Your task to perform on an android device: Search for custom wallets on Etsy. Image 0: 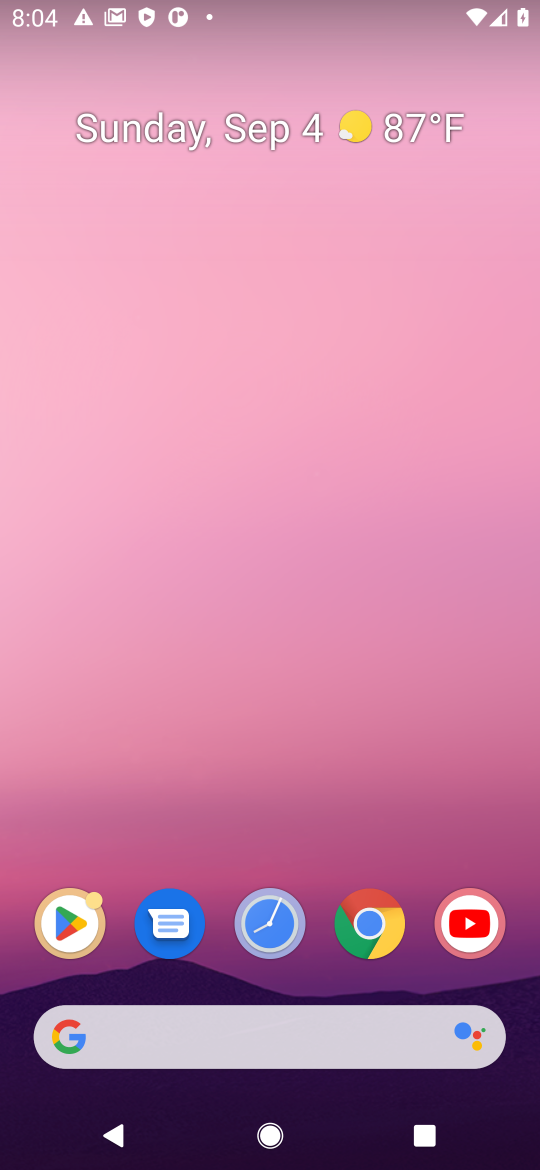
Step 0: press home button
Your task to perform on an android device: Search for custom wallets on Etsy. Image 1: 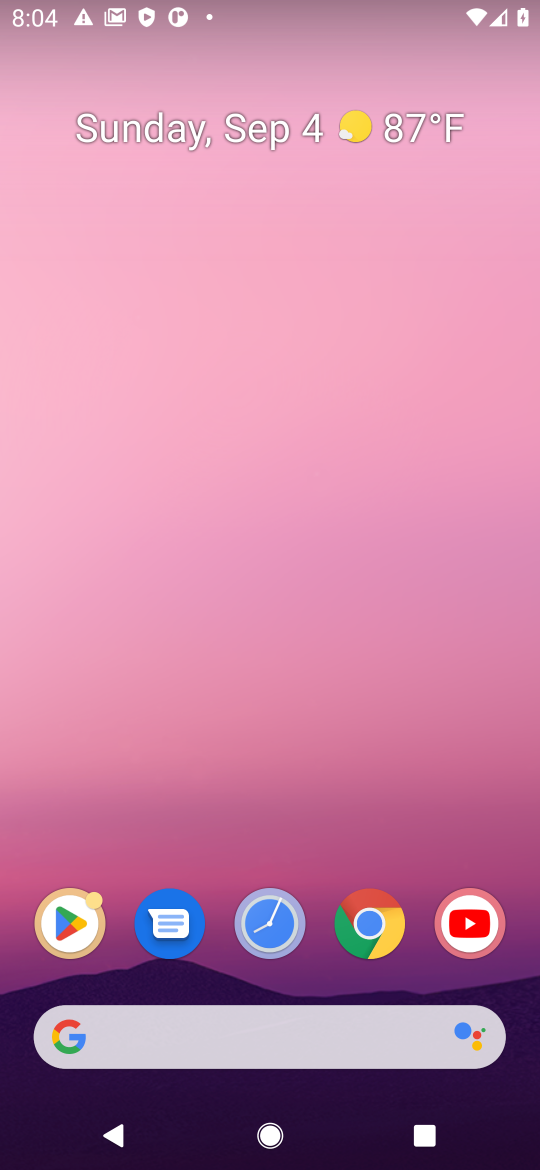
Step 1: click (337, 1040)
Your task to perform on an android device: Search for custom wallets on Etsy. Image 2: 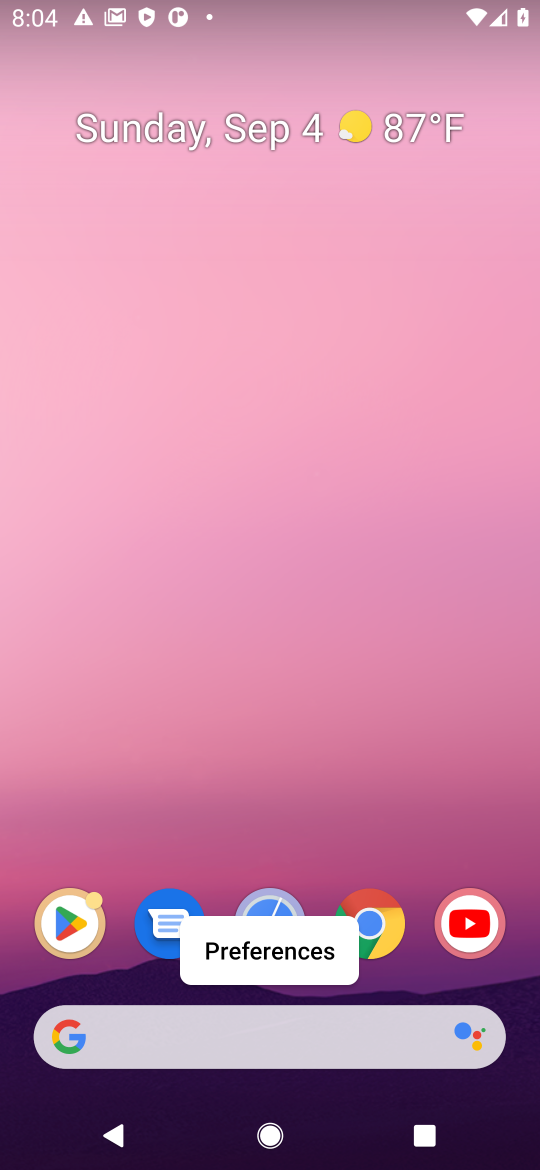
Step 2: click (338, 1025)
Your task to perform on an android device: Search for custom wallets on Etsy. Image 3: 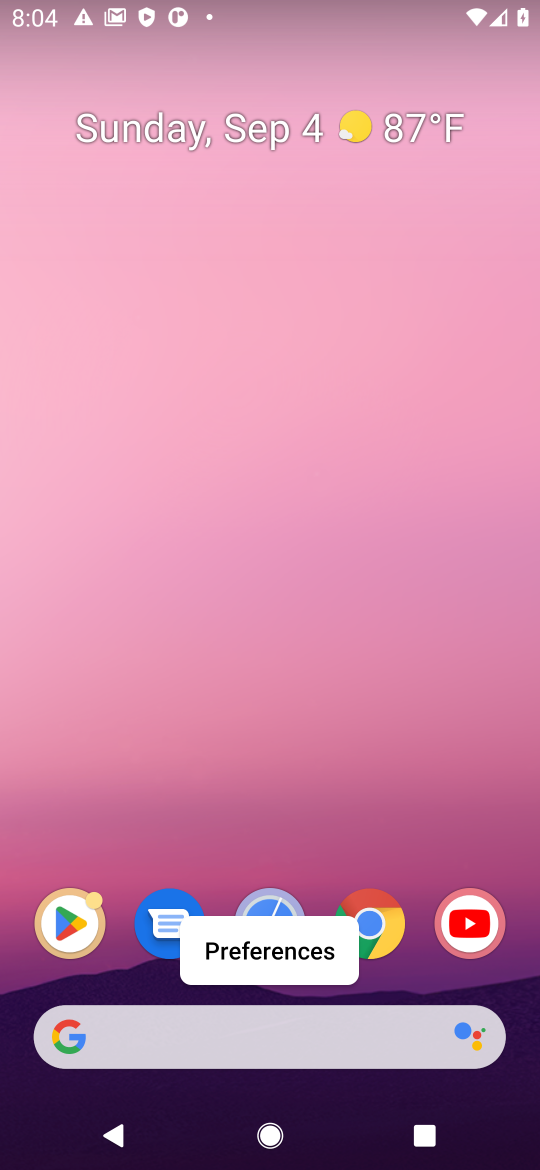
Step 3: click (365, 1039)
Your task to perform on an android device: Search for custom wallets on Etsy. Image 4: 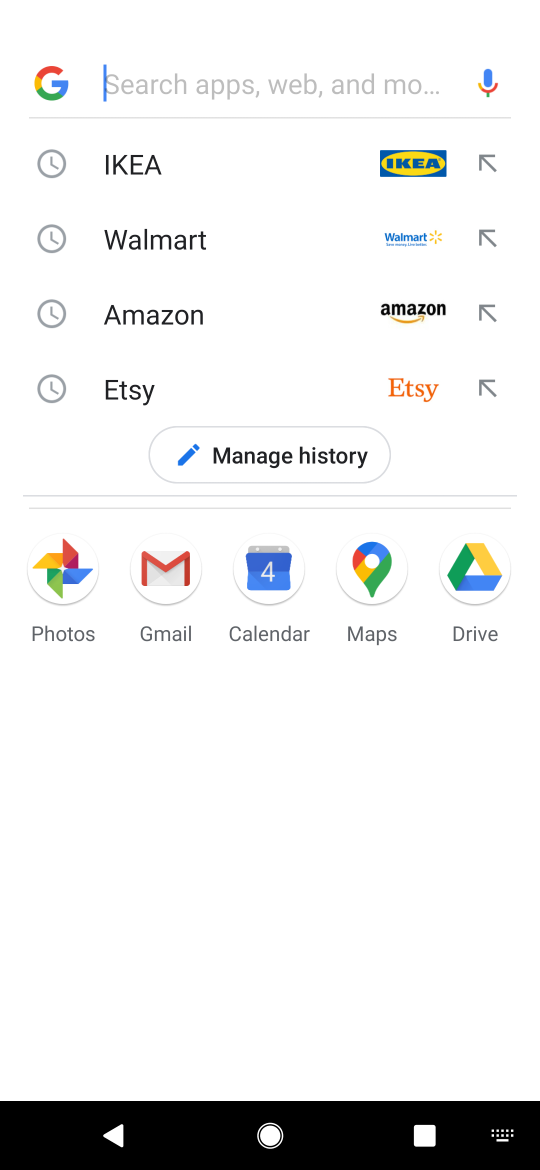
Step 4: click (137, 388)
Your task to perform on an android device: Search for custom wallets on Etsy. Image 5: 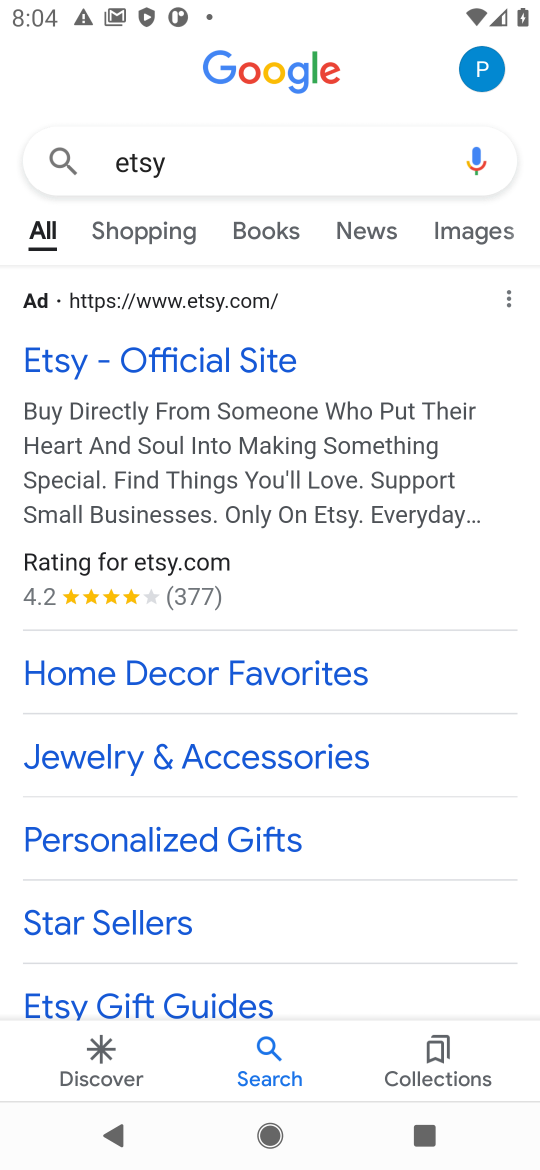
Step 5: click (255, 362)
Your task to perform on an android device: Search for custom wallets on Etsy. Image 6: 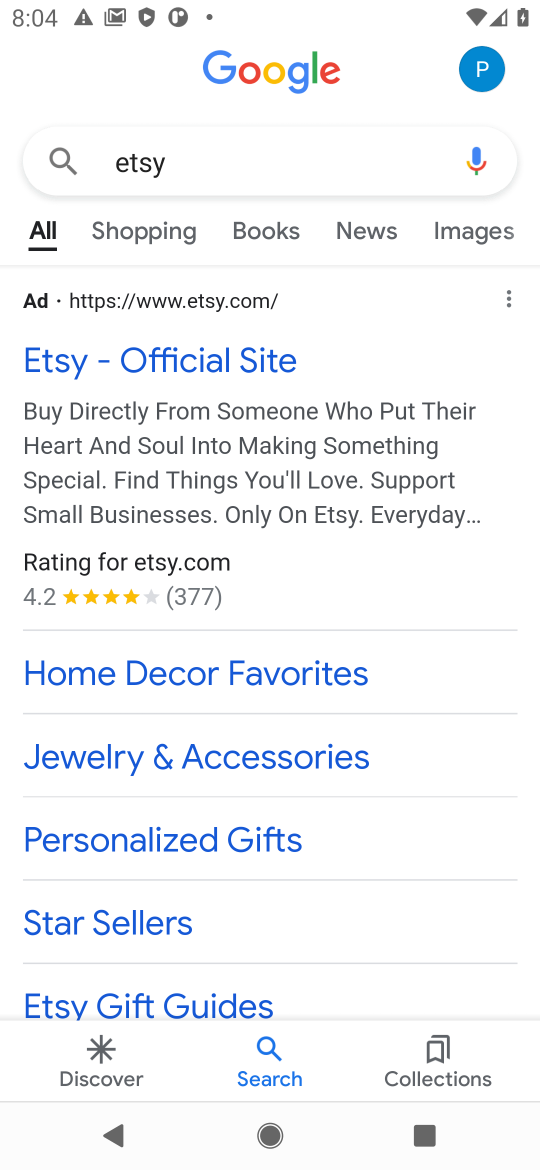
Step 6: click (217, 357)
Your task to perform on an android device: Search for custom wallets on Etsy. Image 7: 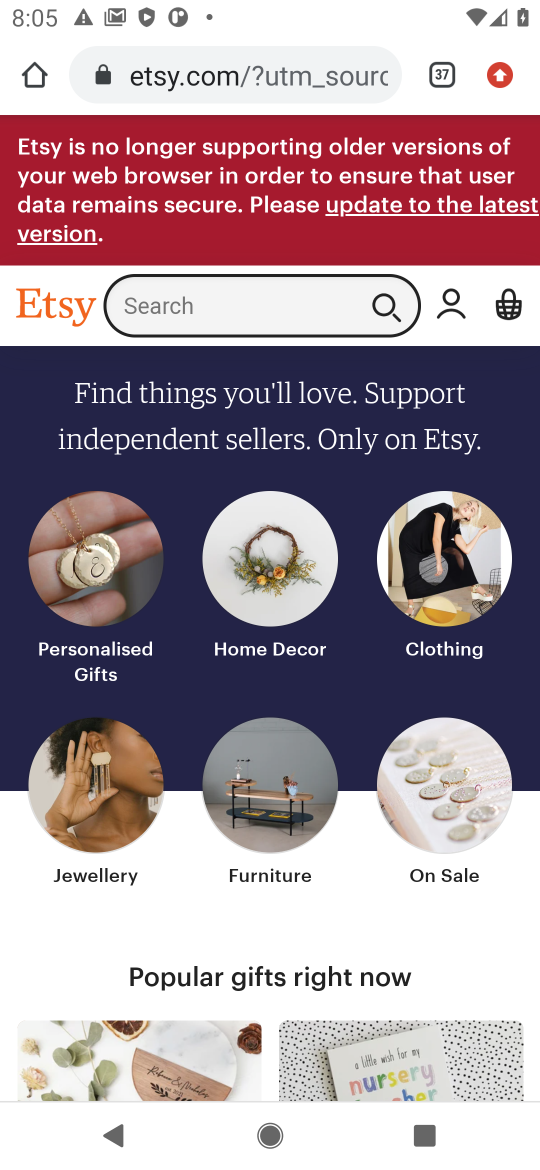
Step 7: click (230, 302)
Your task to perform on an android device: Search for custom wallets on Etsy. Image 8: 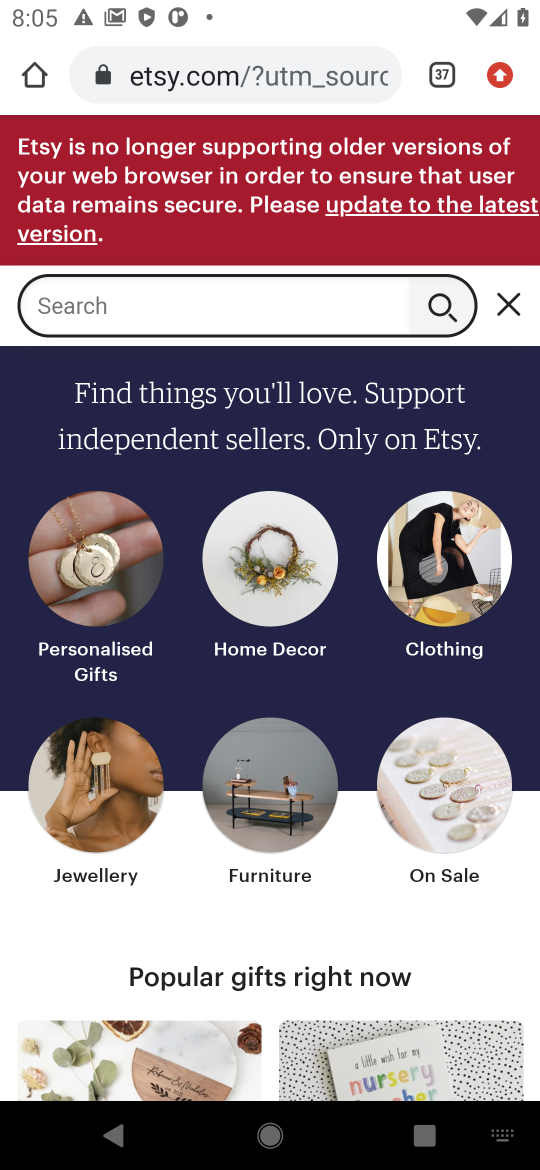
Step 8: type " custom wallets"
Your task to perform on an android device: Search for custom wallets on Etsy. Image 9: 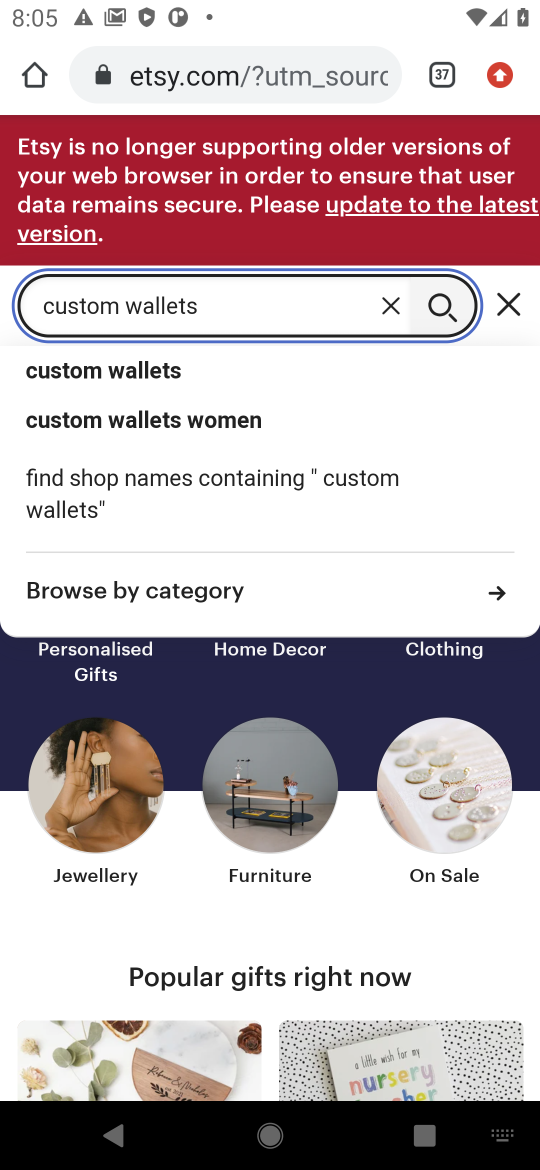
Step 9: click (107, 368)
Your task to perform on an android device: Search for custom wallets on Etsy. Image 10: 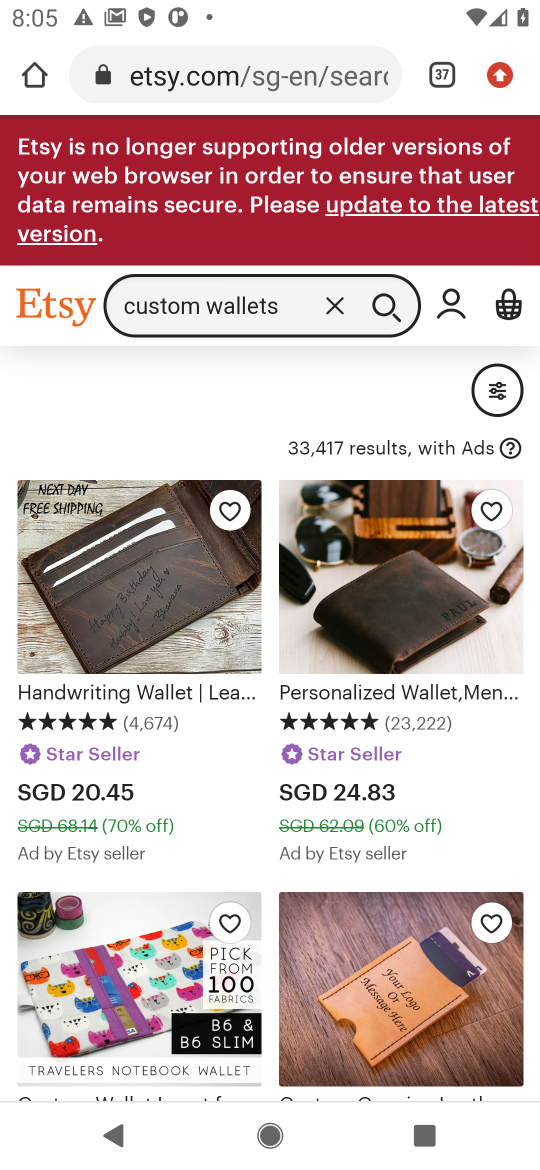
Step 10: task complete